Your task to perform on an android device: Search for sushi restaurants on Maps Image 0: 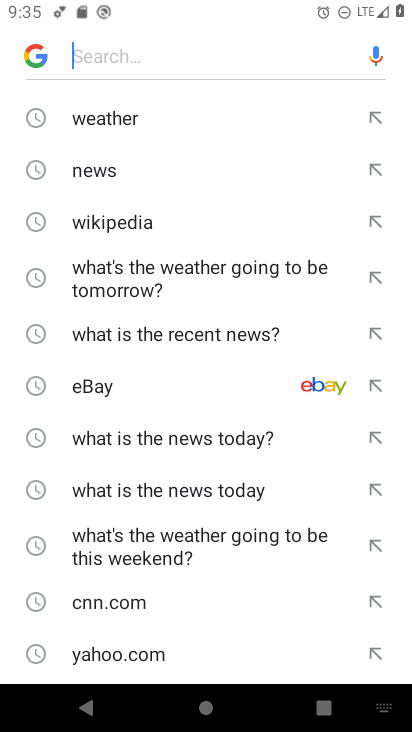
Step 0: press home button
Your task to perform on an android device: Search for sushi restaurants on Maps Image 1: 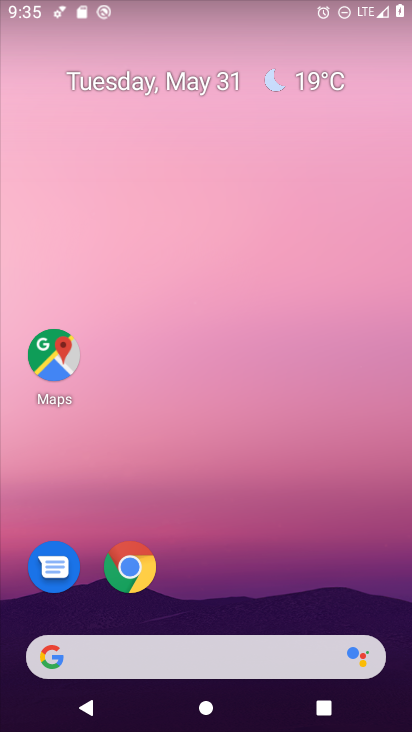
Step 1: drag from (186, 638) to (117, 151)
Your task to perform on an android device: Search for sushi restaurants on Maps Image 2: 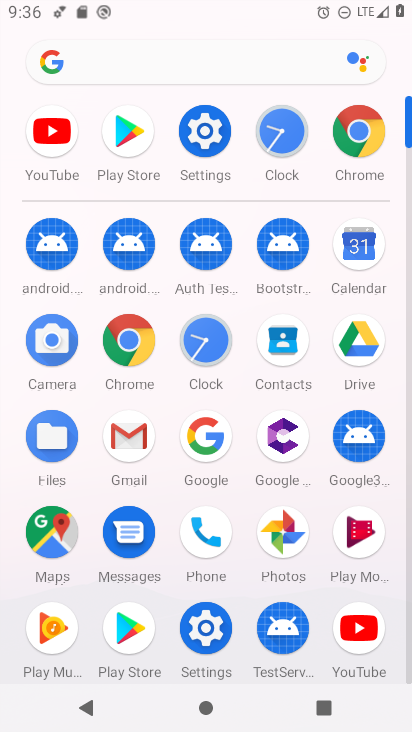
Step 2: click (49, 550)
Your task to perform on an android device: Search for sushi restaurants on Maps Image 3: 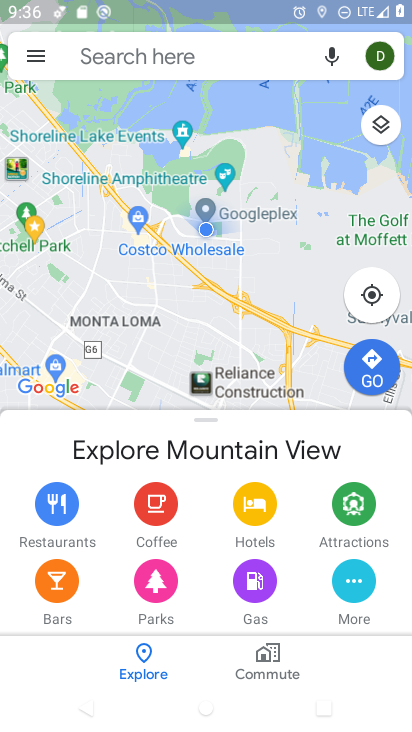
Step 3: click (205, 54)
Your task to perform on an android device: Search for sushi restaurants on Maps Image 4: 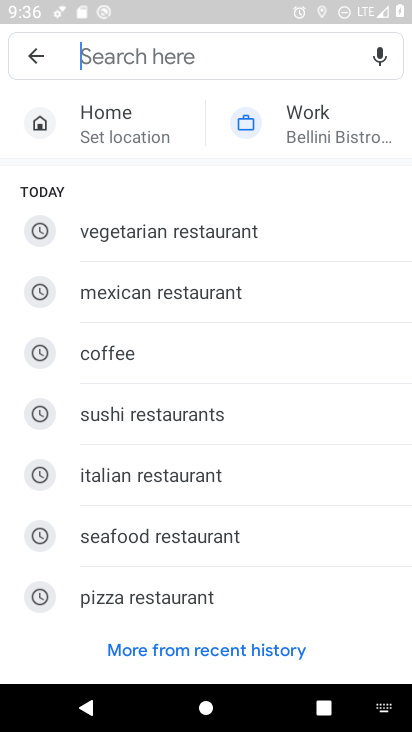
Step 4: click (150, 419)
Your task to perform on an android device: Search for sushi restaurants on Maps Image 5: 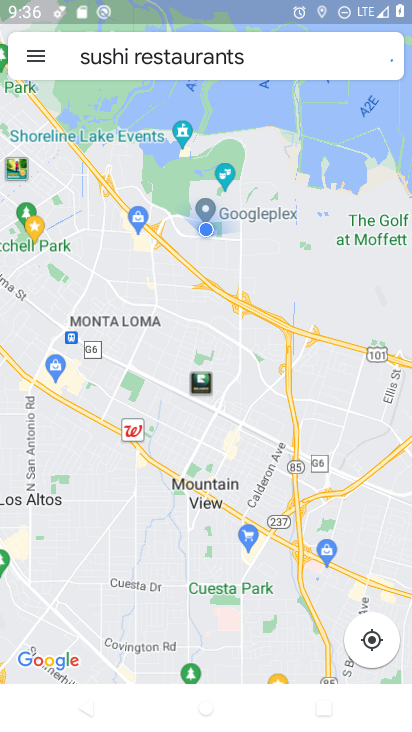
Step 5: task complete